Your task to perform on an android device: toggle location history Image 0: 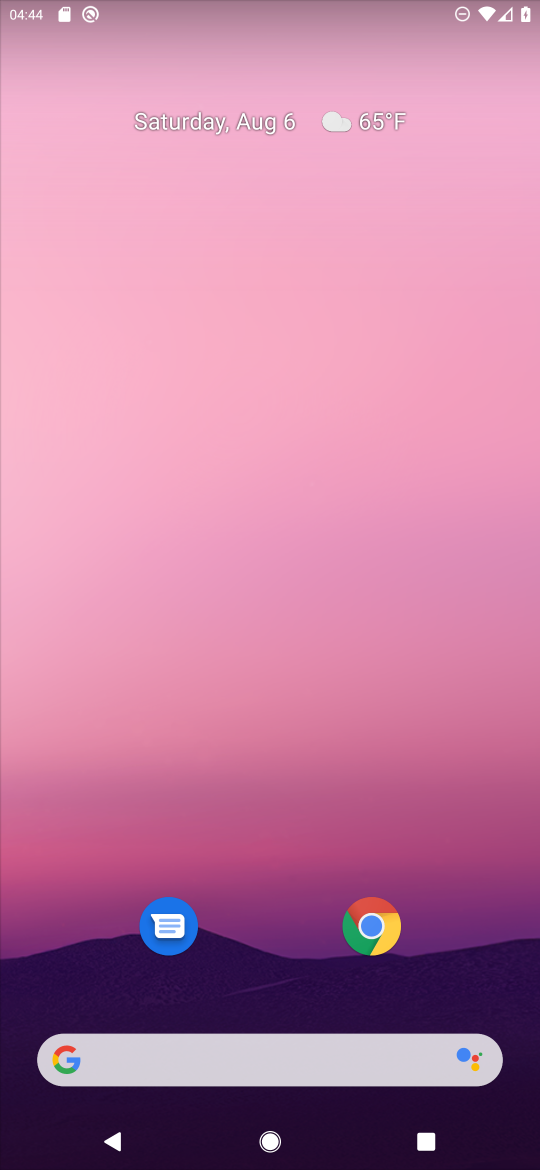
Step 0: drag from (248, 917) to (237, 237)
Your task to perform on an android device: toggle location history Image 1: 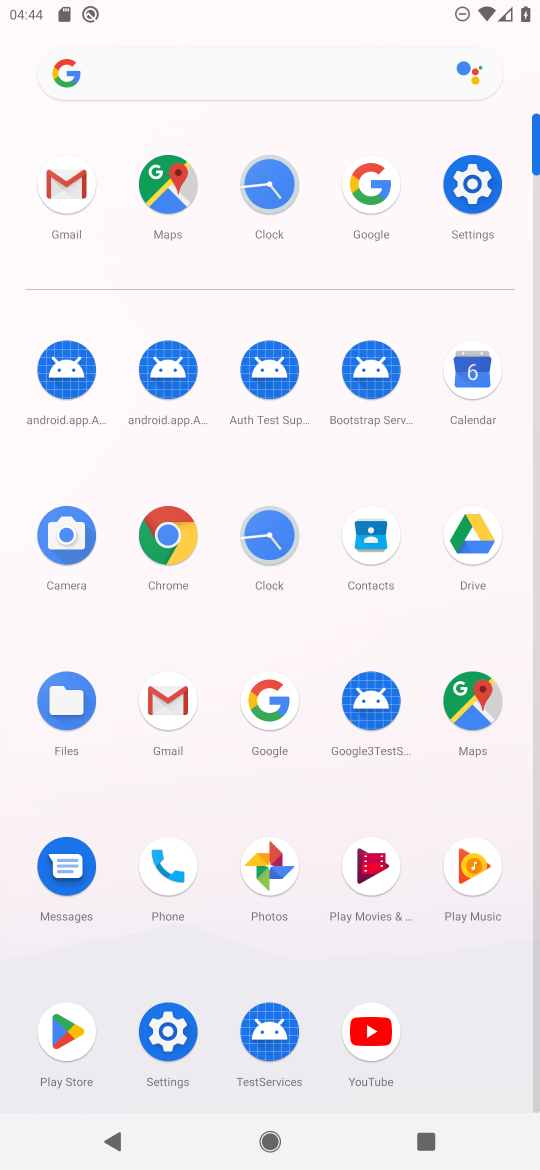
Step 1: click (461, 189)
Your task to perform on an android device: toggle location history Image 2: 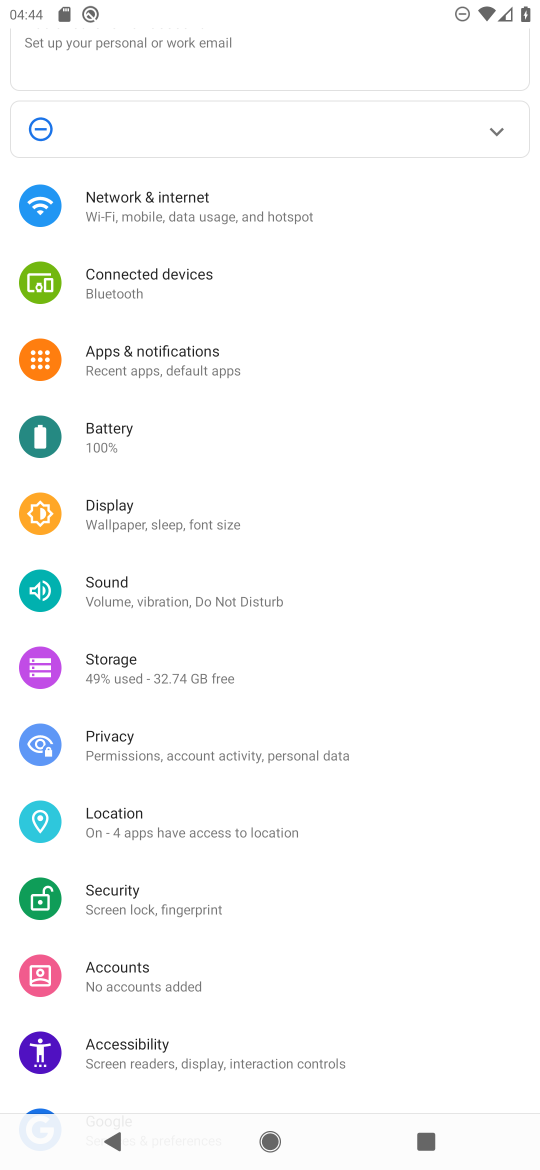
Step 2: click (227, 807)
Your task to perform on an android device: toggle location history Image 3: 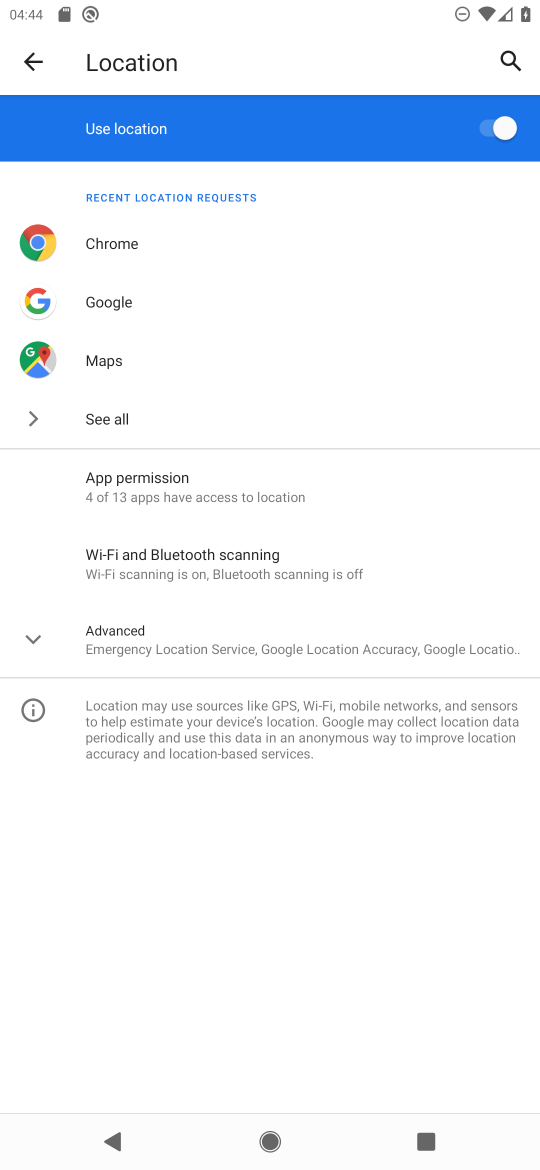
Step 3: click (156, 647)
Your task to perform on an android device: toggle location history Image 4: 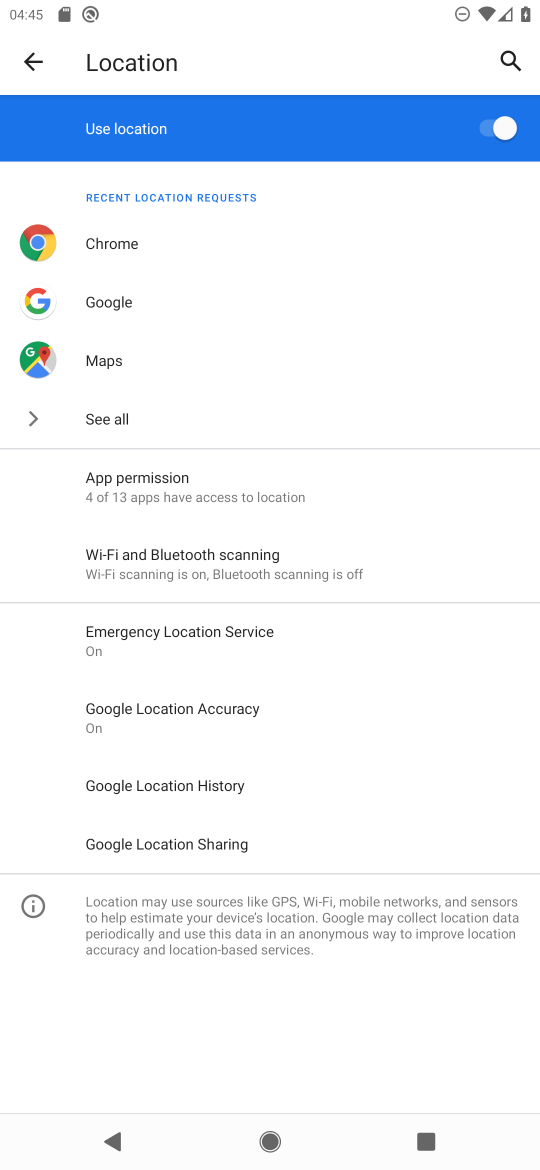
Step 4: click (211, 795)
Your task to perform on an android device: toggle location history Image 5: 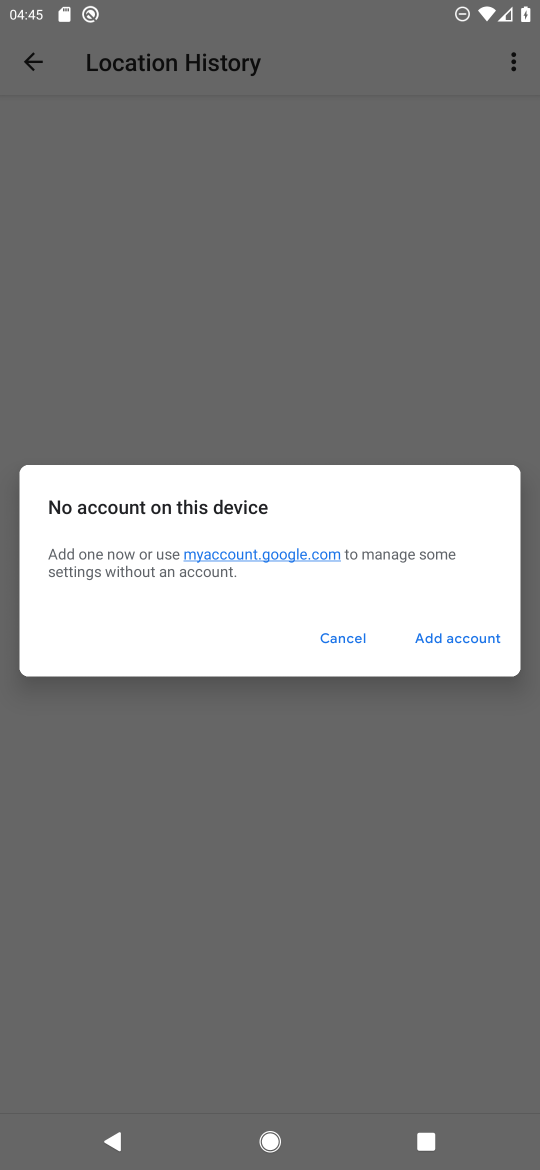
Step 5: task complete